Your task to perform on an android device: create a new album in the google photos Image 0: 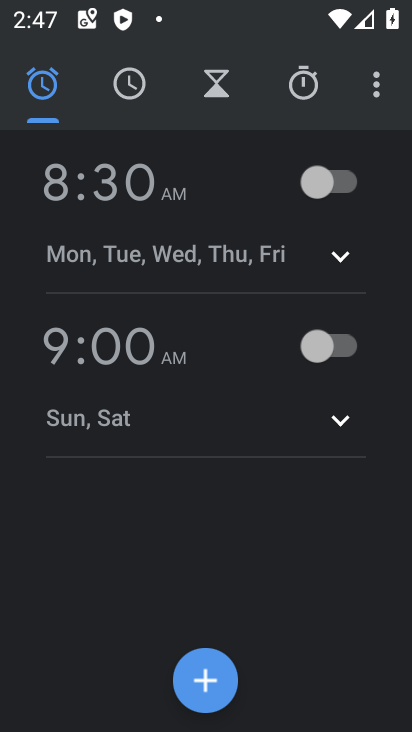
Step 0: press home button
Your task to perform on an android device: create a new album in the google photos Image 1: 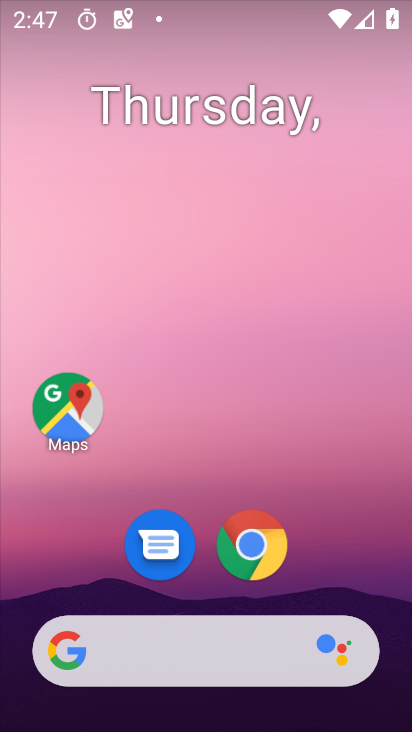
Step 1: drag from (218, 728) to (225, 72)
Your task to perform on an android device: create a new album in the google photos Image 2: 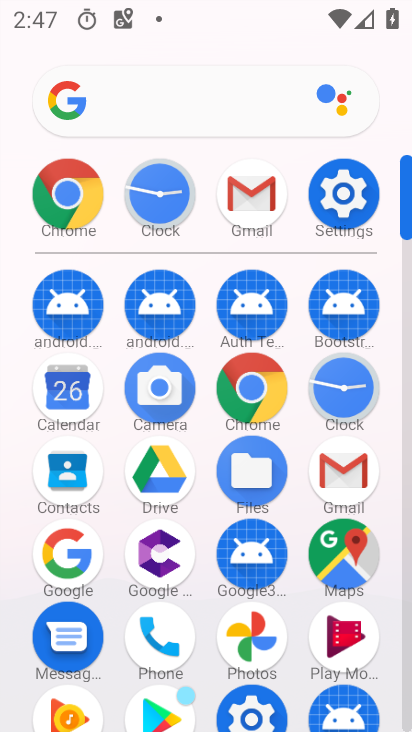
Step 2: click (250, 623)
Your task to perform on an android device: create a new album in the google photos Image 3: 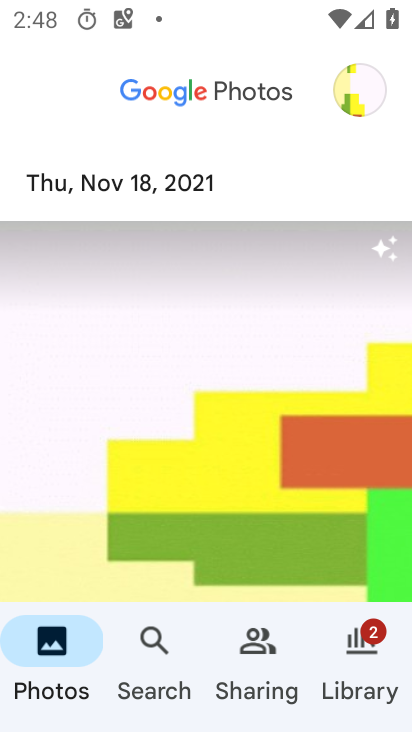
Step 3: click (366, 638)
Your task to perform on an android device: create a new album in the google photos Image 4: 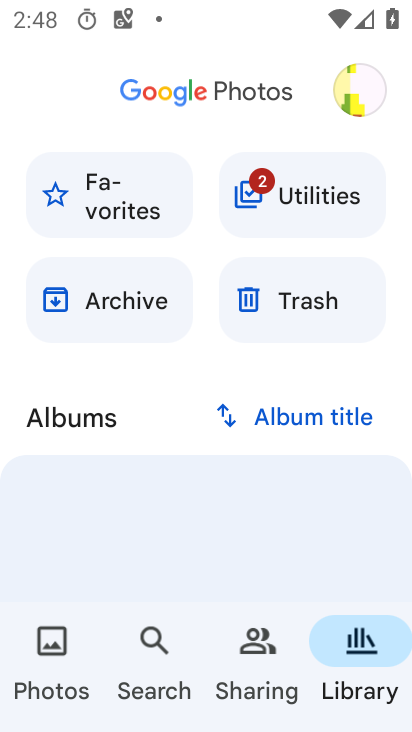
Step 4: drag from (148, 561) to (154, 286)
Your task to perform on an android device: create a new album in the google photos Image 5: 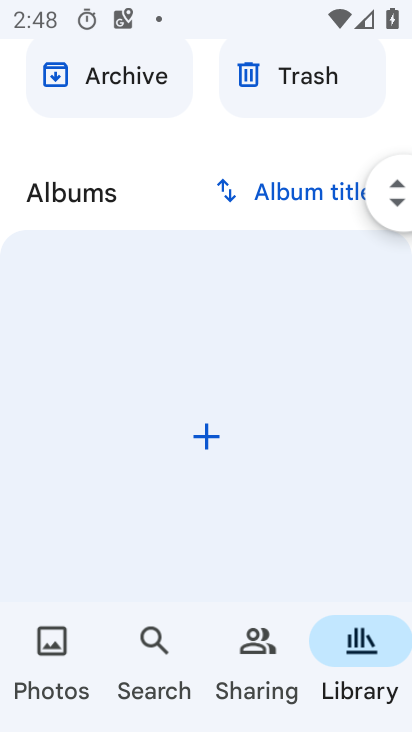
Step 5: click (203, 434)
Your task to perform on an android device: create a new album in the google photos Image 6: 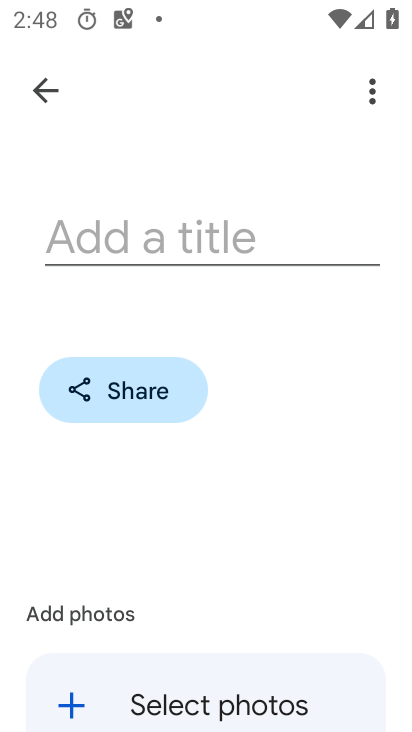
Step 6: click (174, 232)
Your task to perform on an android device: create a new album in the google photos Image 7: 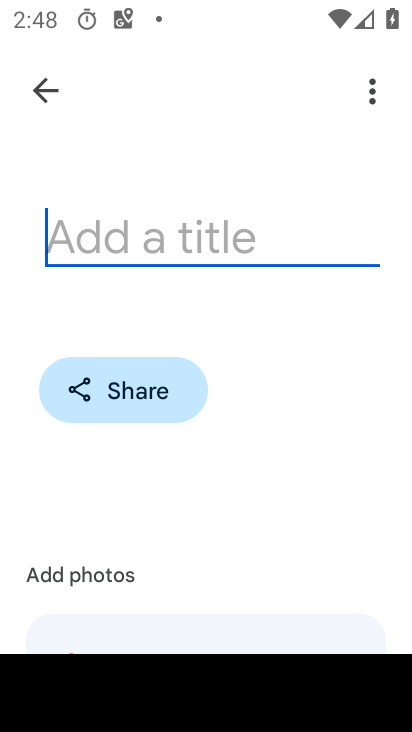
Step 7: type "joji"
Your task to perform on an android device: create a new album in the google photos Image 8: 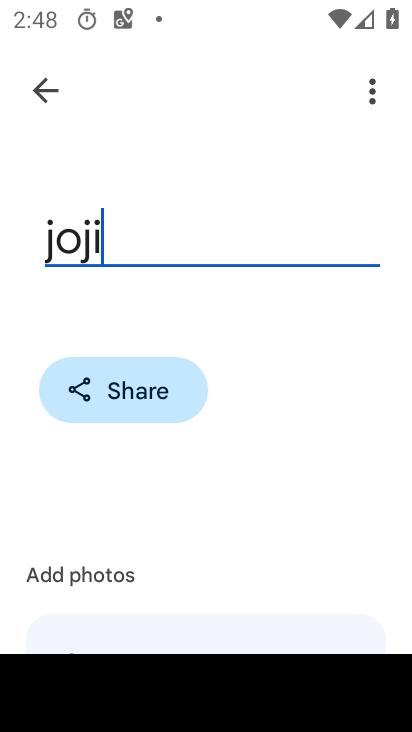
Step 8: type ""
Your task to perform on an android device: create a new album in the google photos Image 9: 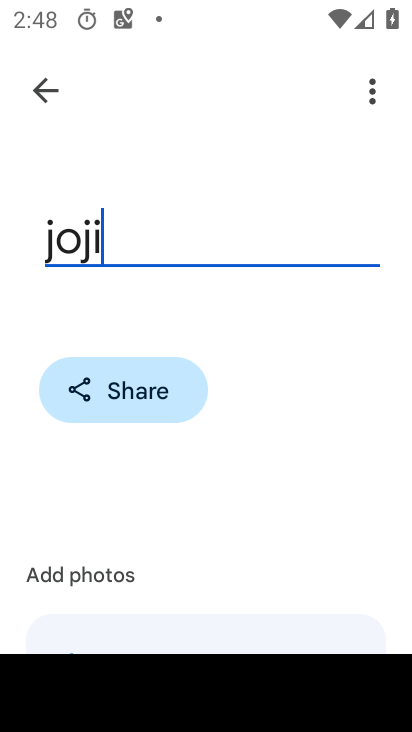
Step 9: drag from (139, 607) to (182, 315)
Your task to perform on an android device: create a new album in the google photos Image 10: 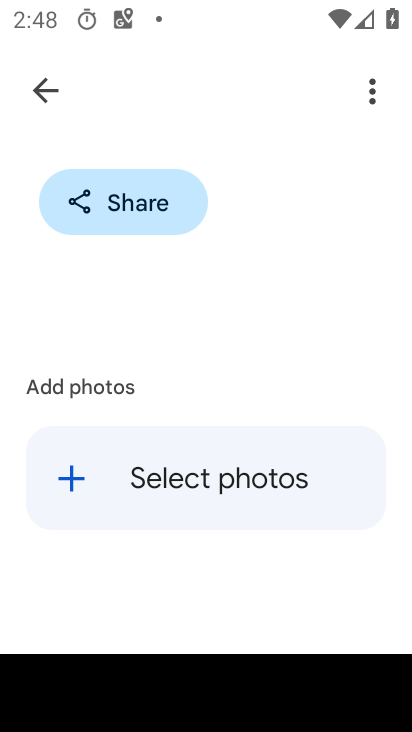
Step 10: click (74, 480)
Your task to perform on an android device: create a new album in the google photos Image 11: 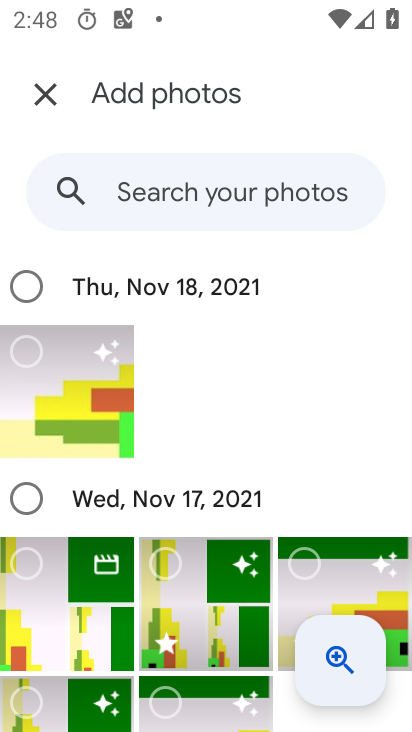
Step 11: click (38, 348)
Your task to perform on an android device: create a new album in the google photos Image 12: 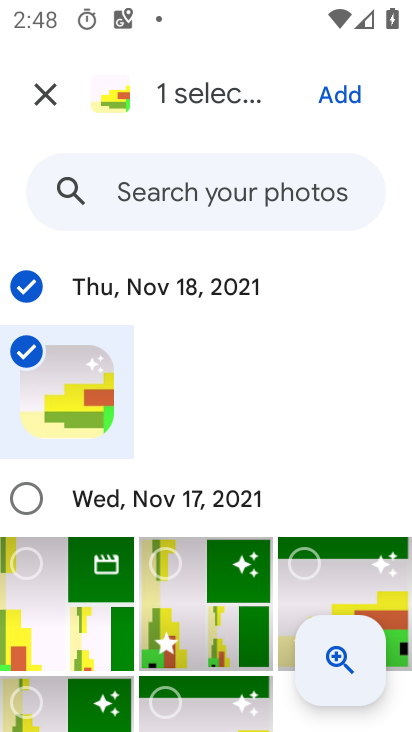
Step 12: click (344, 91)
Your task to perform on an android device: create a new album in the google photos Image 13: 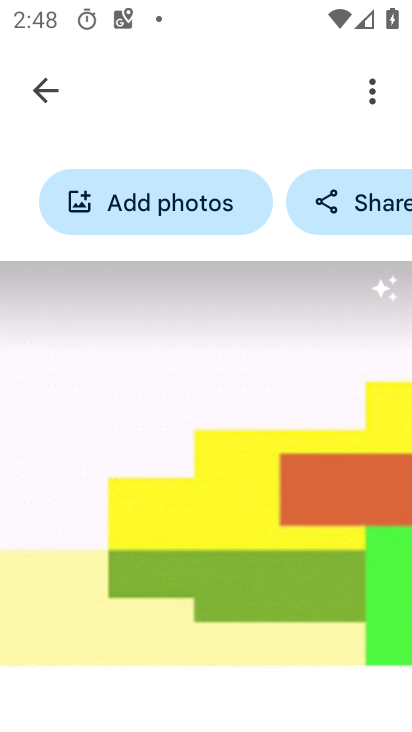
Step 13: task complete